Your task to perform on an android device: open sync settings in chrome Image 0: 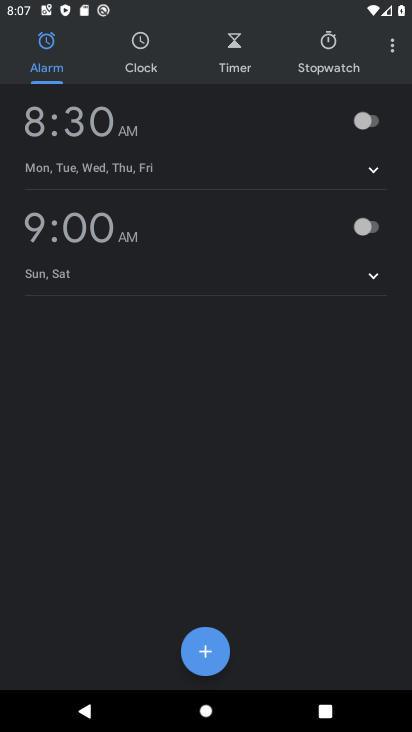
Step 0: press home button
Your task to perform on an android device: open sync settings in chrome Image 1: 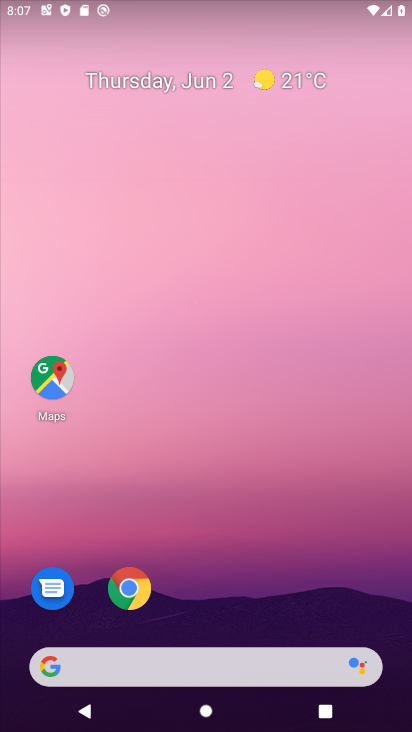
Step 1: drag from (244, 586) to (257, 62)
Your task to perform on an android device: open sync settings in chrome Image 2: 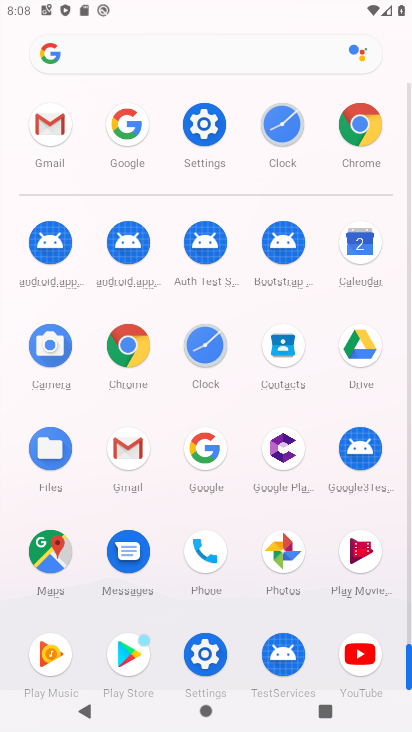
Step 2: click (376, 118)
Your task to perform on an android device: open sync settings in chrome Image 3: 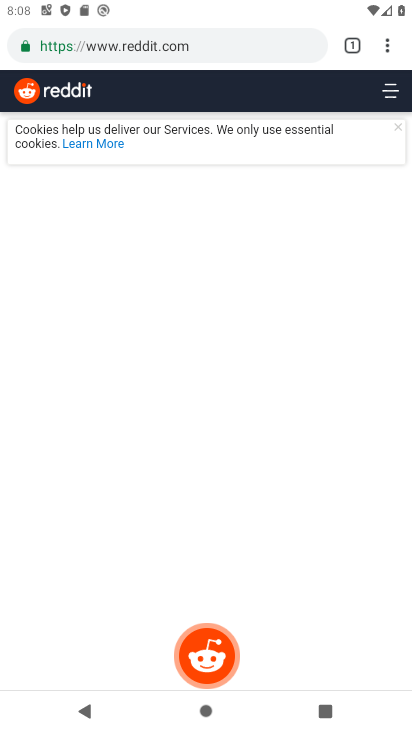
Step 3: click (389, 55)
Your task to perform on an android device: open sync settings in chrome Image 4: 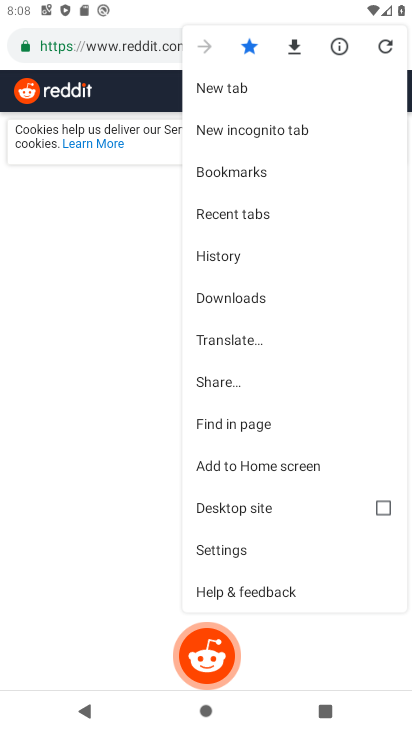
Step 4: click (230, 551)
Your task to perform on an android device: open sync settings in chrome Image 5: 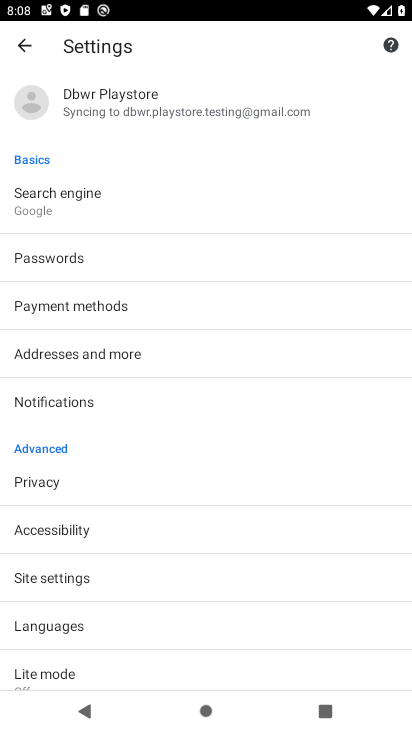
Step 5: click (156, 108)
Your task to perform on an android device: open sync settings in chrome Image 6: 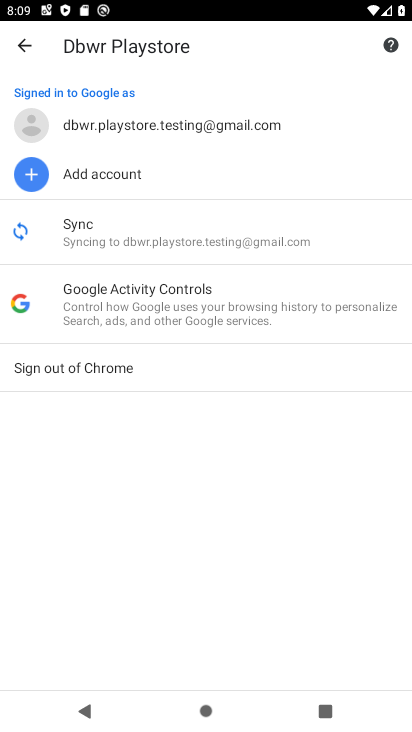
Step 6: click (192, 235)
Your task to perform on an android device: open sync settings in chrome Image 7: 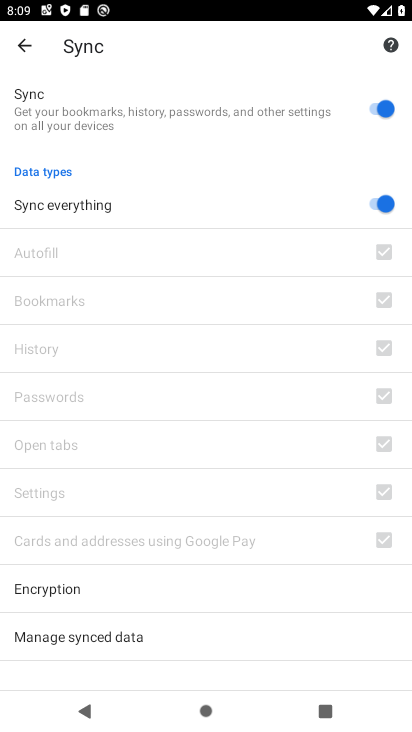
Step 7: task complete